Your task to perform on an android device: turn on improve location accuracy Image 0: 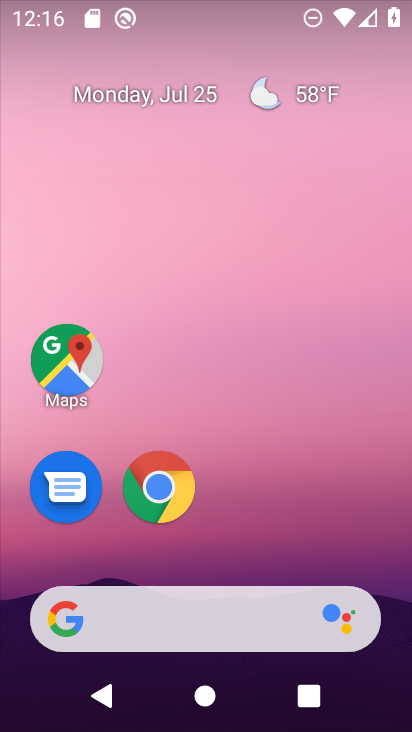
Step 0: drag from (137, 551) to (298, 28)
Your task to perform on an android device: turn on improve location accuracy Image 1: 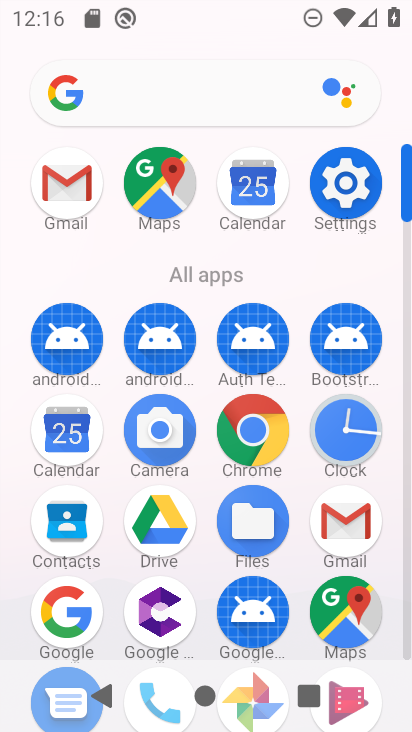
Step 1: click (356, 158)
Your task to perform on an android device: turn on improve location accuracy Image 2: 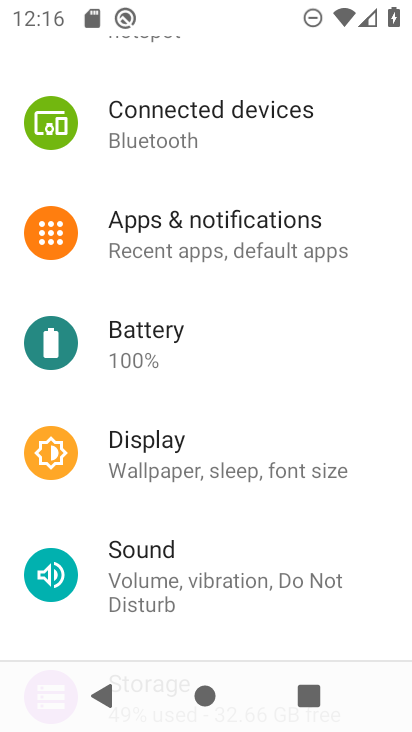
Step 2: drag from (215, 171) to (287, 43)
Your task to perform on an android device: turn on improve location accuracy Image 3: 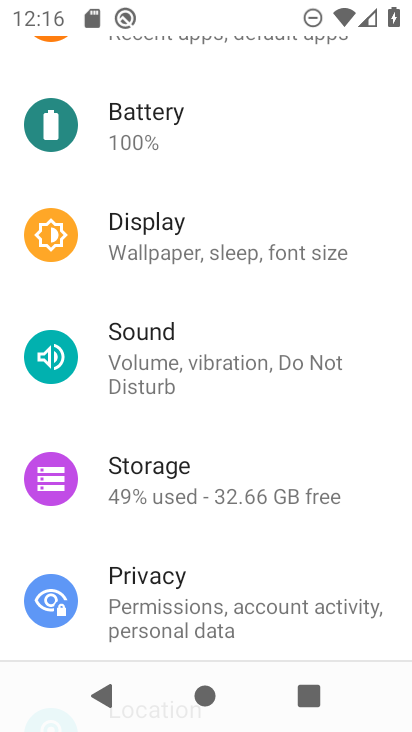
Step 3: drag from (196, 612) to (276, 89)
Your task to perform on an android device: turn on improve location accuracy Image 4: 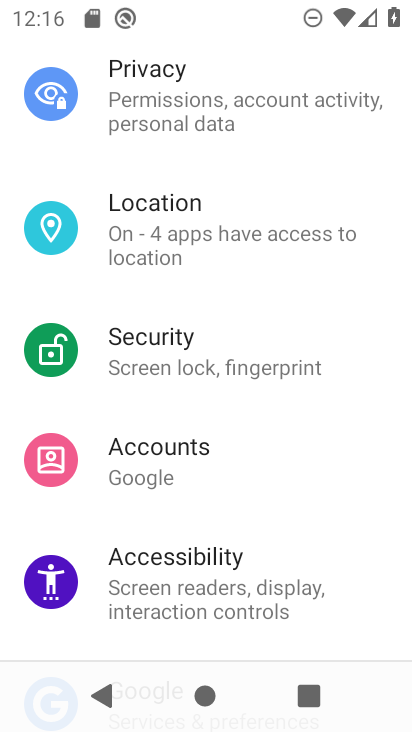
Step 4: click (153, 224)
Your task to perform on an android device: turn on improve location accuracy Image 5: 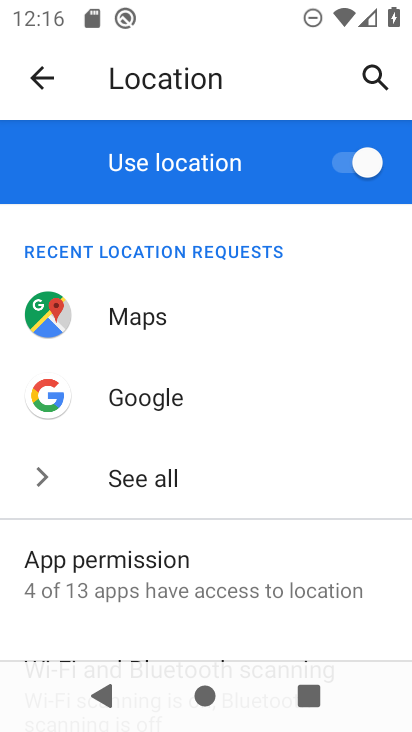
Step 5: drag from (137, 619) to (261, 14)
Your task to perform on an android device: turn on improve location accuracy Image 6: 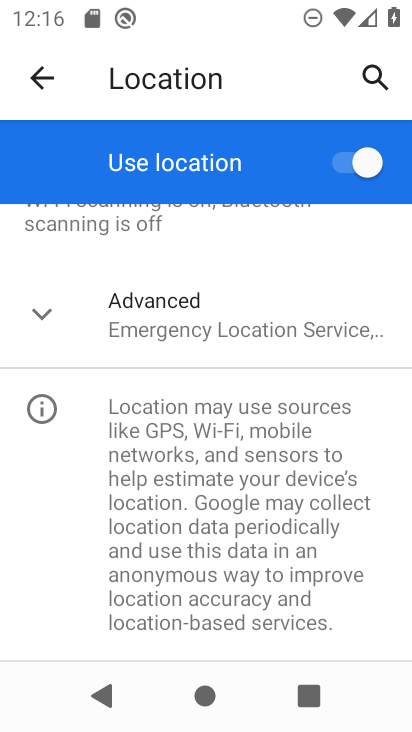
Step 6: click (155, 313)
Your task to perform on an android device: turn on improve location accuracy Image 7: 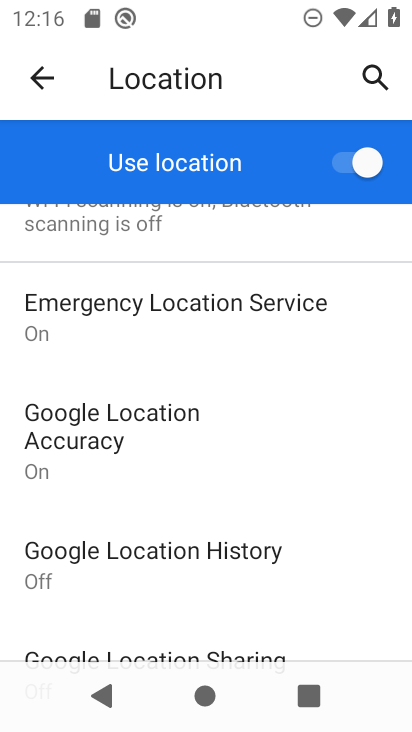
Step 7: click (159, 418)
Your task to perform on an android device: turn on improve location accuracy Image 8: 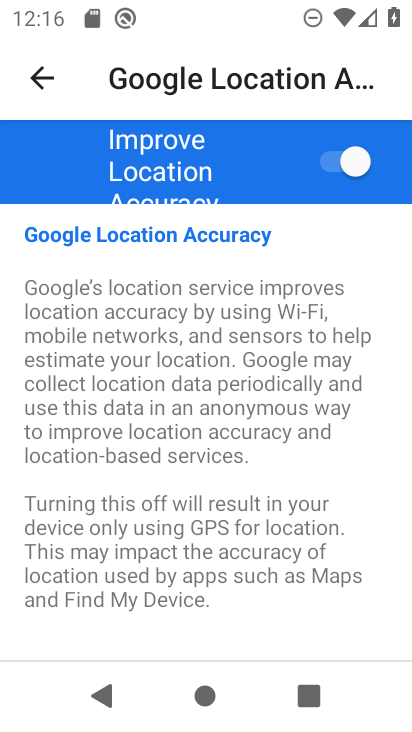
Step 8: task complete